Your task to perform on an android device: Go to wifi settings Image 0: 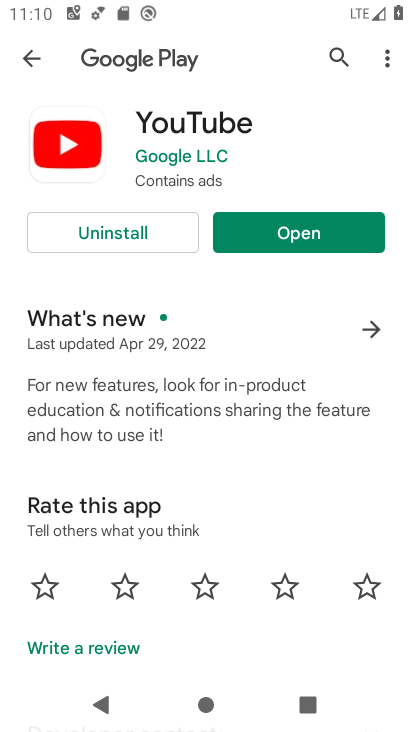
Step 0: press home button
Your task to perform on an android device: Go to wifi settings Image 1: 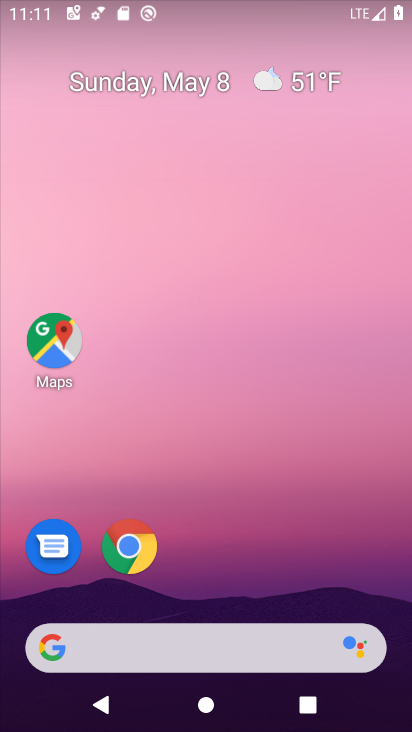
Step 1: drag from (377, 594) to (340, 65)
Your task to perform on an android device: Go to wifi settings Image 2: 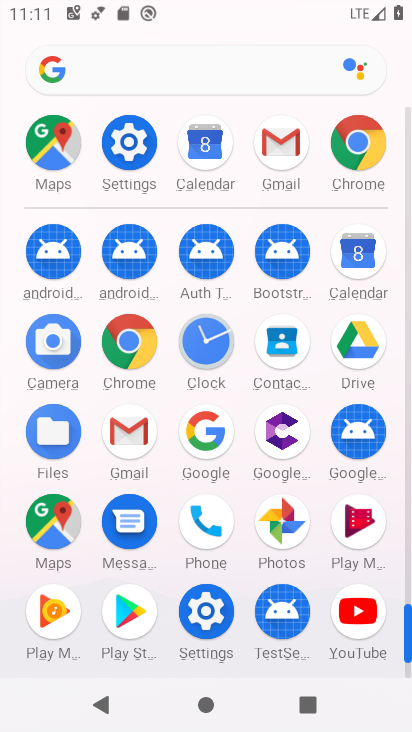
Step 2: click (203, 610)
Your task to perform on an android device: Go to wifi settings Image 3: 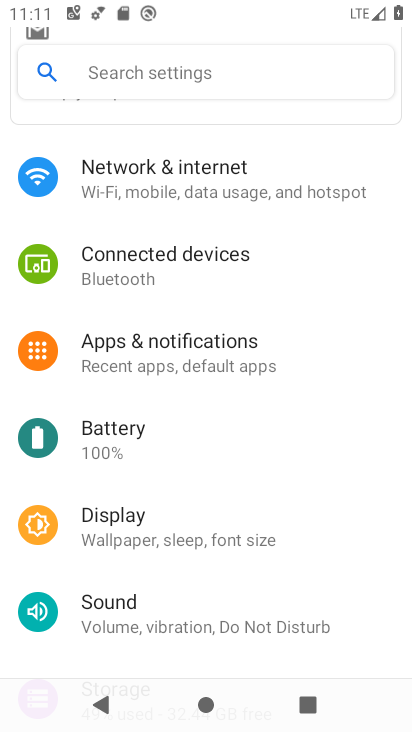
Step 3: click (126, 181)
Your task to perform on an android device: Go to wifi settings Image 4: 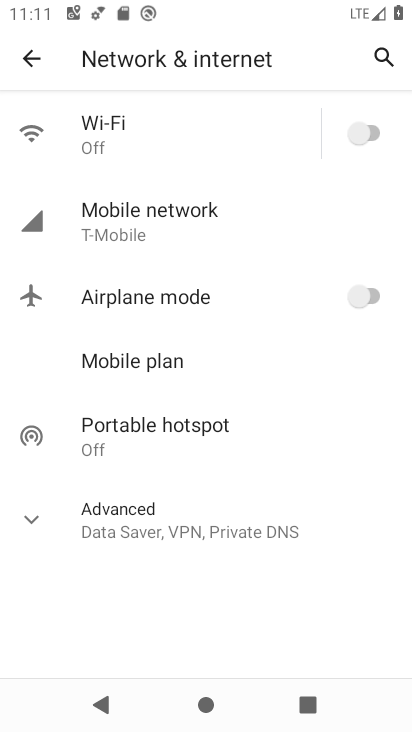
Step 4: click (84, 134)
Your task to perform on an android device: Go to wifi settings Image 5: 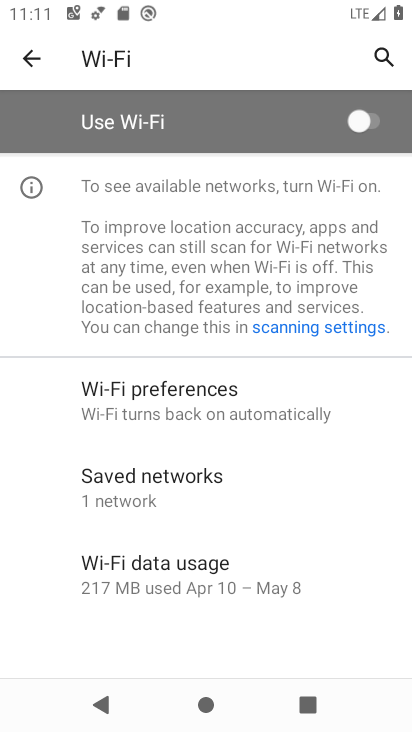
Step 5: task complete